Your task to perform on an android device: Open the stopwatch Image 0: 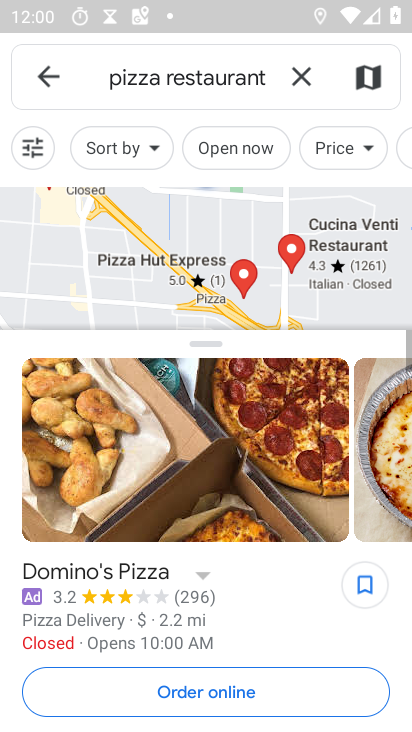
Step 0: press home button
Your task to perform on an android device: Open the stopwatch Image 1: 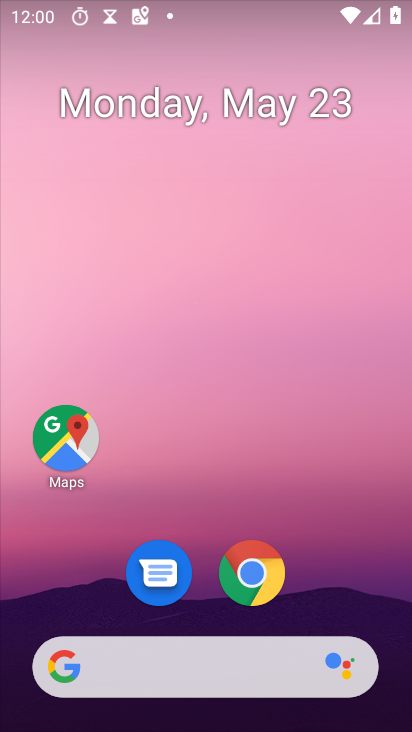
Step 1: drag from (170, 673) to (335, 132)
Your task to perform on an android device: Open the stopwatch Image 2: 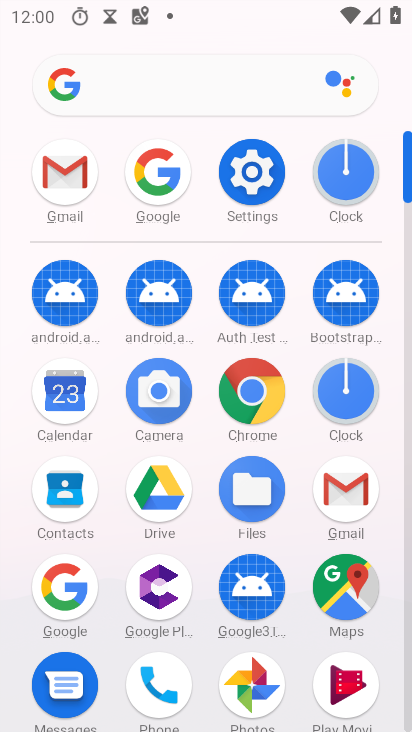
Step 2: click (339, 406)
Your task to perform on an android device: Open the stopwatch Image 3: 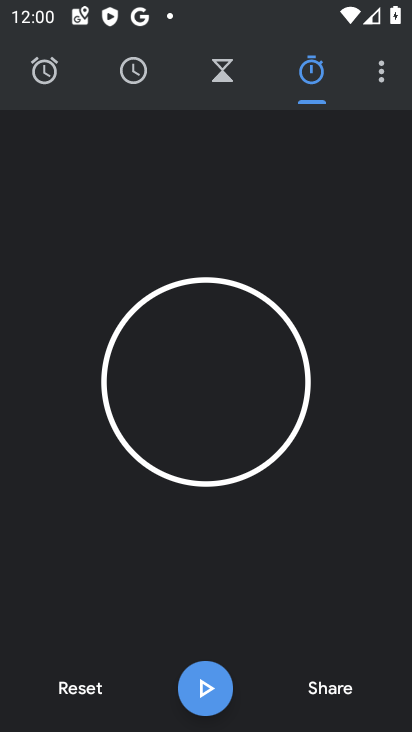
Step 3: task complete